Your task to perform on an android device: Open display settings Image 0: 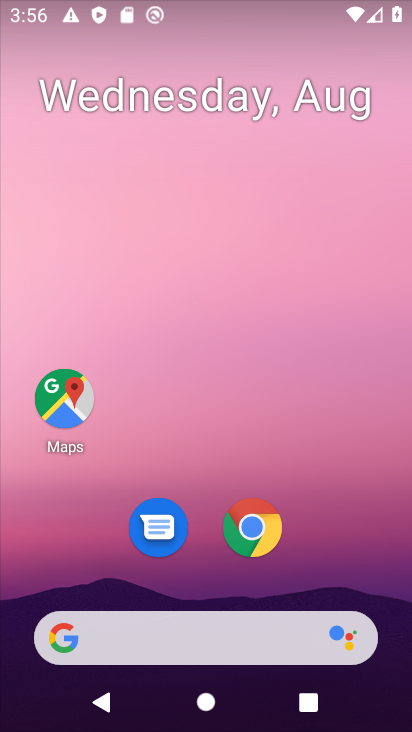
Step 0: drag from (189, 573) to (166, 13)
Your task to perform on an android device: Open display settings Image 1: 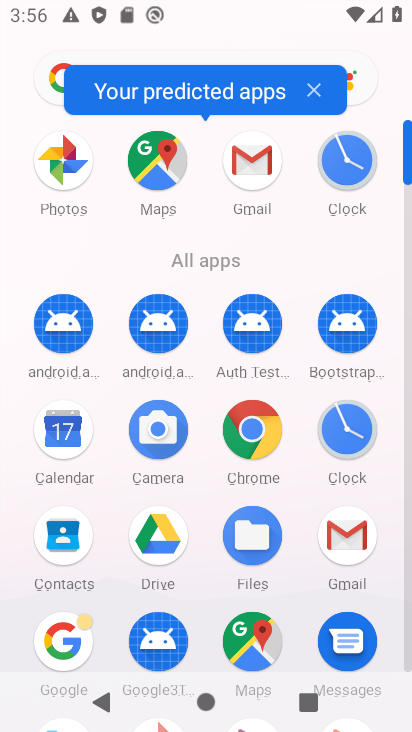
Step 1: drag from (204, 566) to (147, 175)
Your task to perform on an android device: Open display settings Image 2: 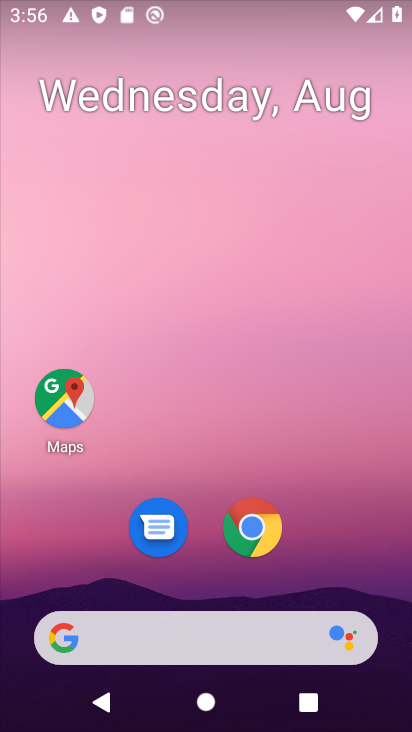
Step 2: drag from (211, 572) to (151, 144)
Your task to perform on an android device: Open display settings Image 3: 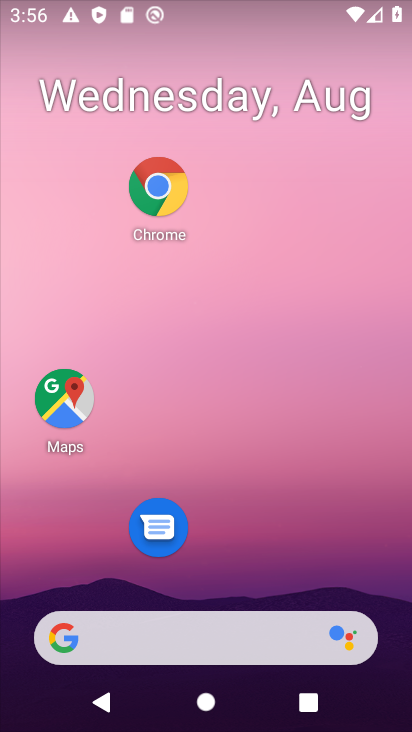
Step 3: drag from (241, 599) to (180, 49)
Your task to perform on an android device: Open display settings Image 4: 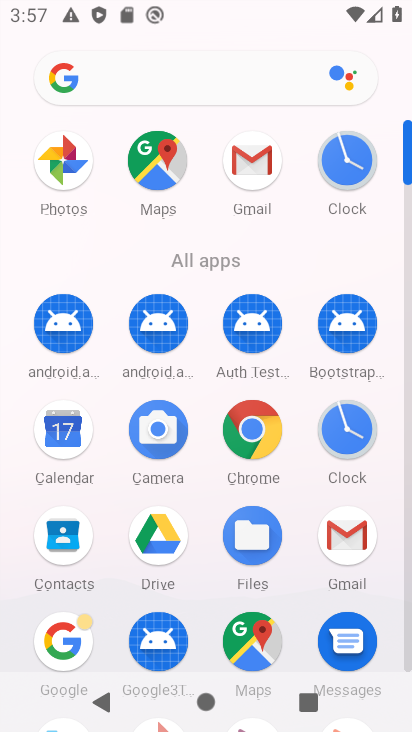
Step 4: drag from (204, 651) to (200, 73)
Your task to perform on an android device: Open display settings Image 5: 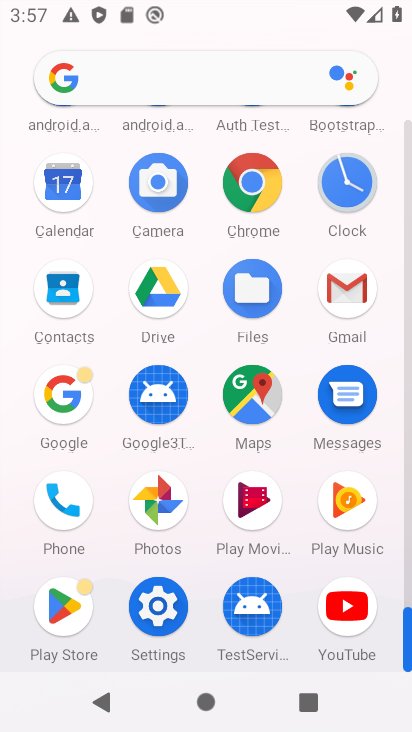
Step 5: click (159, 590)
Your task to perform on an android device: Open display settings Image 6: 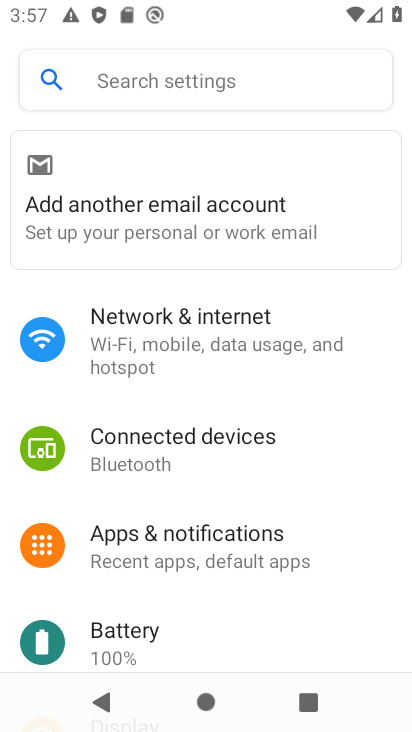
Step 6: drag from (159, 590) to (153, 105)
Your task to perform on an android device: Open display settings Image 7: 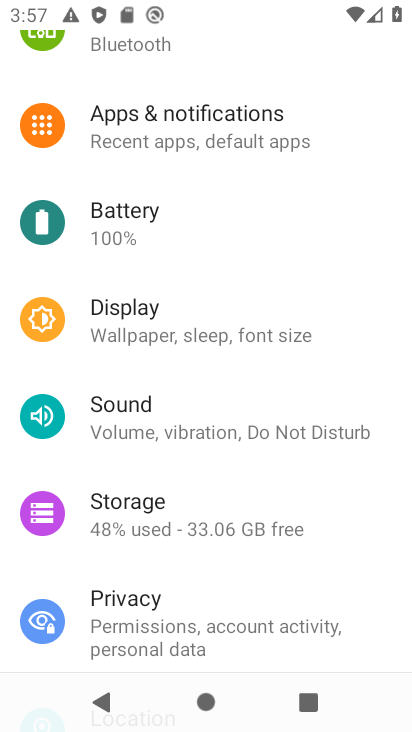
Step 7: click (136, 341)
Your task to perform on an android device: Open display settings Image 8: 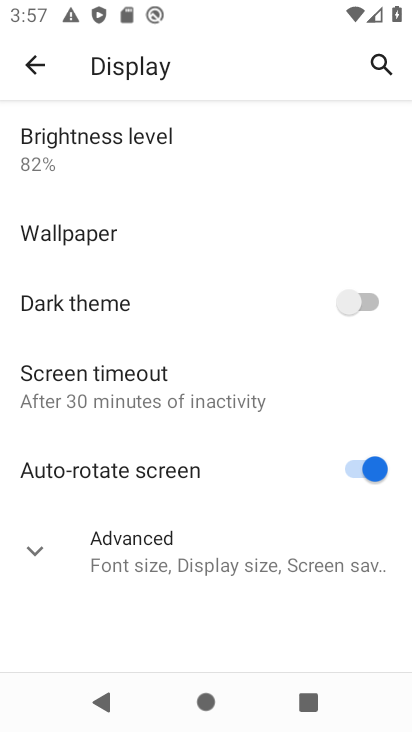
Step 8: task complete